Your task to perform on an android device: turn off data saver in the chrome app Image 0: 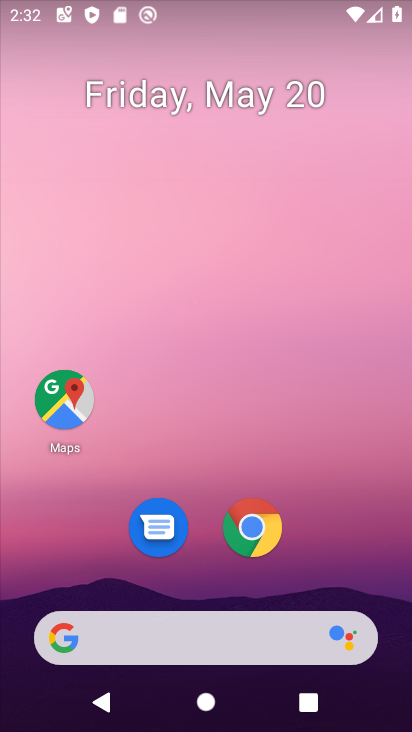
Step 0: click (234, 520)
Your task to perform on an android device: turn off data saver in the chrome app Image 1: 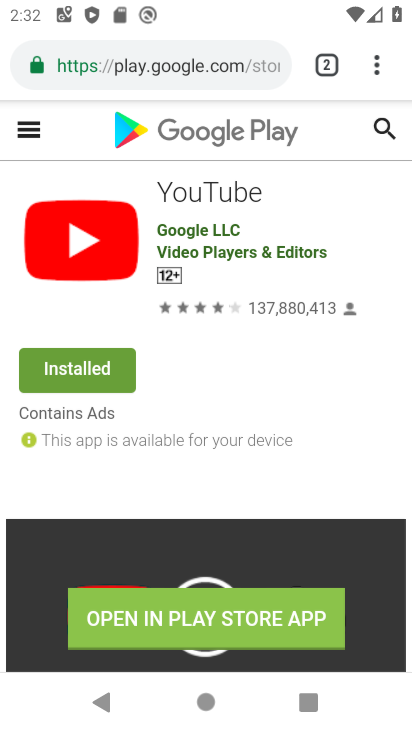
Step 1: click (374, 63)
Your task to perform on an android device: turn off data saver in the chrome app Image 2: 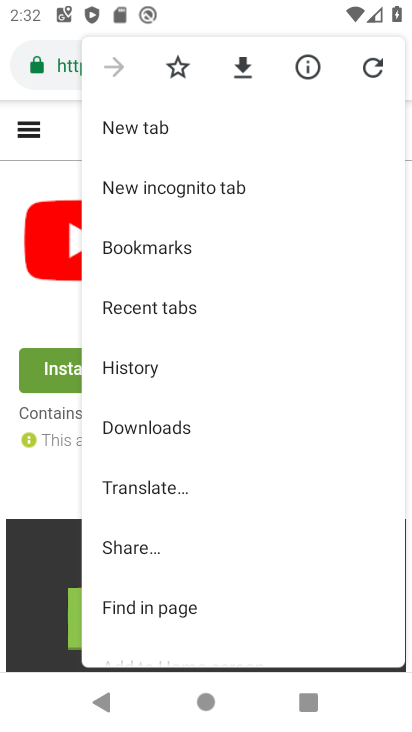
Step 2: drag from (269, 565) to (287, 127)
Your task to perform on an android device: turn off data saver in the chrome app Image 3: 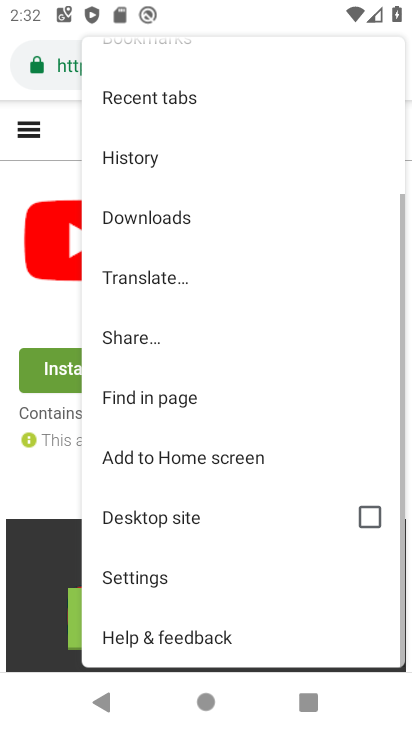
Step 3: click (182, 572)
Your task to perform on an android device: turn off data saver in the chrome app Image 4: 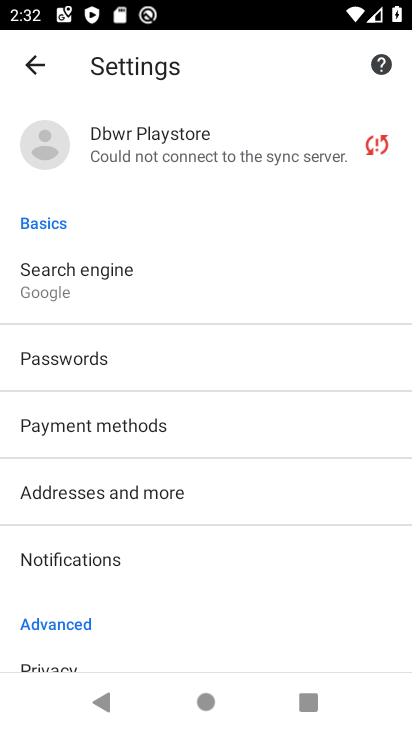
Step 4: drag from (252, 602) to (245, 147)
Your task to perform on an android device: turn off data saver in the chrome app Image 5: 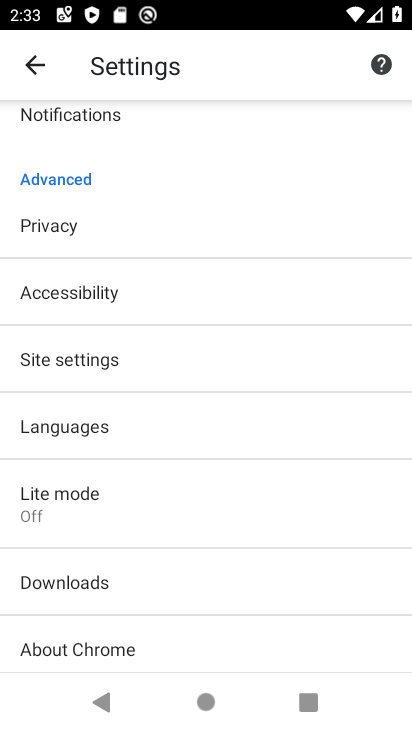
Step 5: click (107, 510)
Your task to perform on an android device: turn off data saver in the chrome app Image 6: 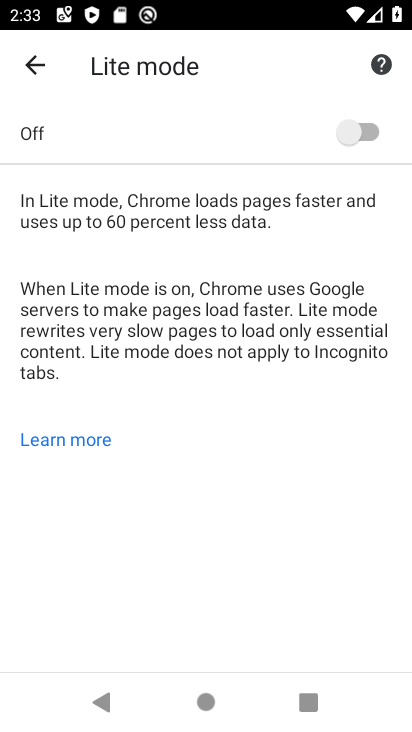
Step 6: task complete